Your task to perform on an android device: Go to internet settings Image 0: 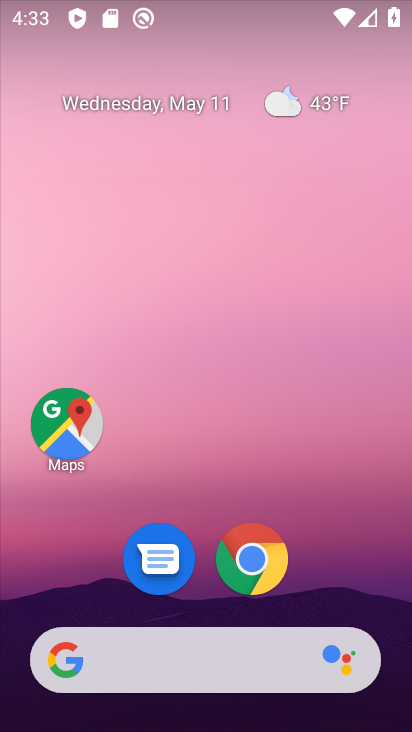
Step 0: drag from (307, 592) to (290, 121)
Your task to perform on an android device: Go to internet settings Image 1: 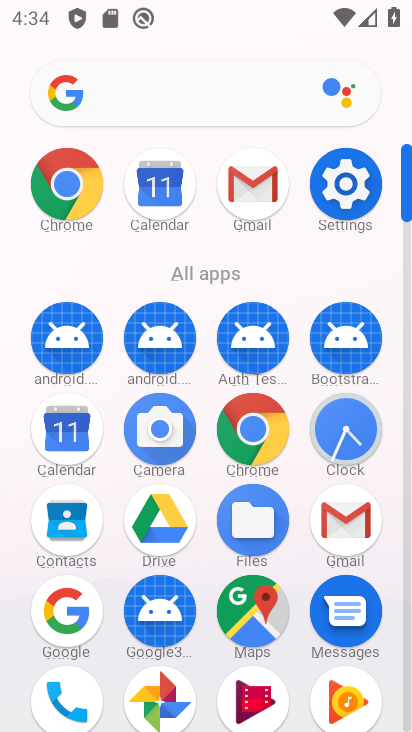
Step 1: click (348, 198)
Your task to perform on an android device: Go to internet settings Image 2: 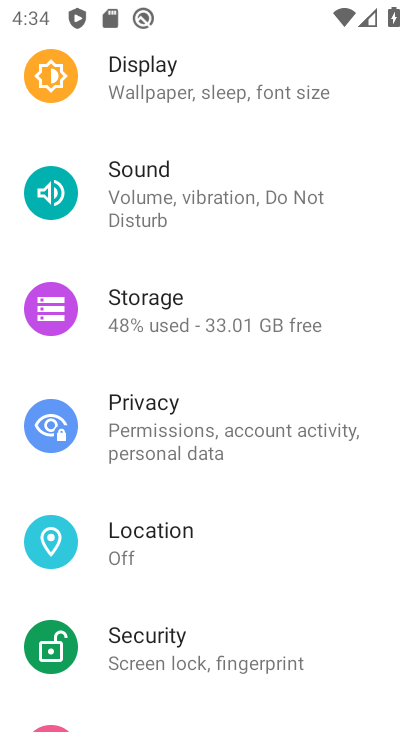
Step 2: drag from (283, 175) to (245, 515)
Your task to perform on an android device: Go to internet settings Image 3: 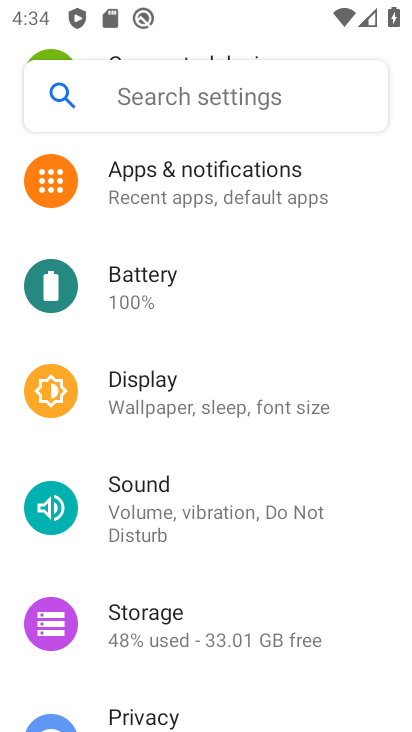
Step 3: drag from (267, 300) to (234, 714)
Your task to perform on an android device: Go to internet settings Image 4: 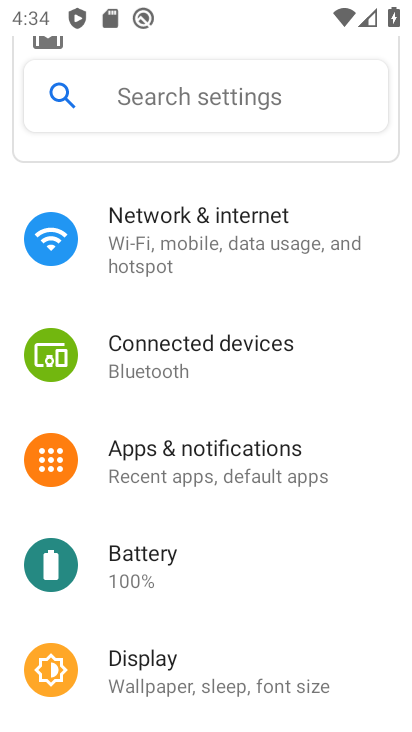
Step 4: click (201, 260)
Your task to perform on an android device: Go to internet settings Image 5: 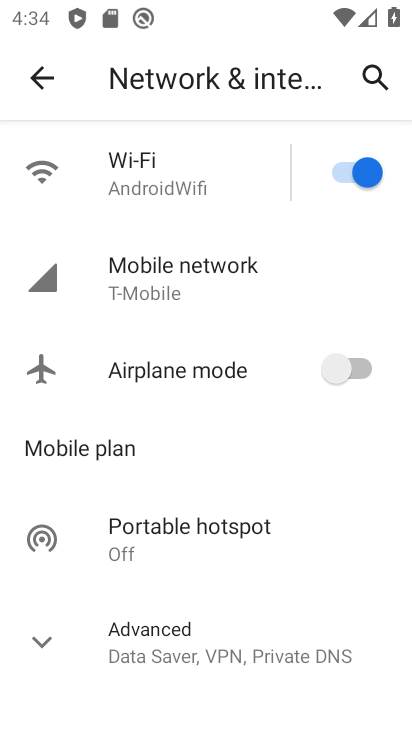
Step 5: drag from (230, 623) to (286, 328)
Your task to perform on an android device: Go to internet settings Image 6: 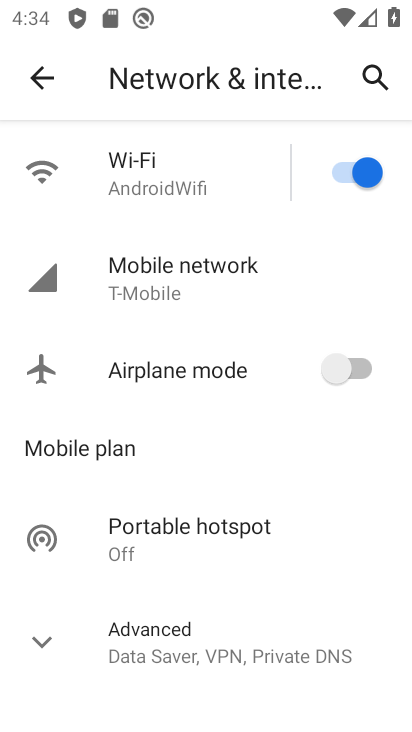
Step 6: click (226, 277)
Your task to perform on an android device: Go to internet settings Image 7: 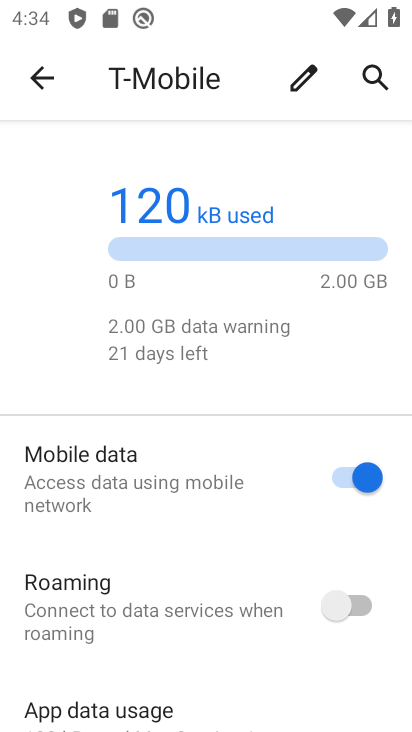
Step 7: task complete